Your task to perform on an android device: open sync settings in chrome Image 0: 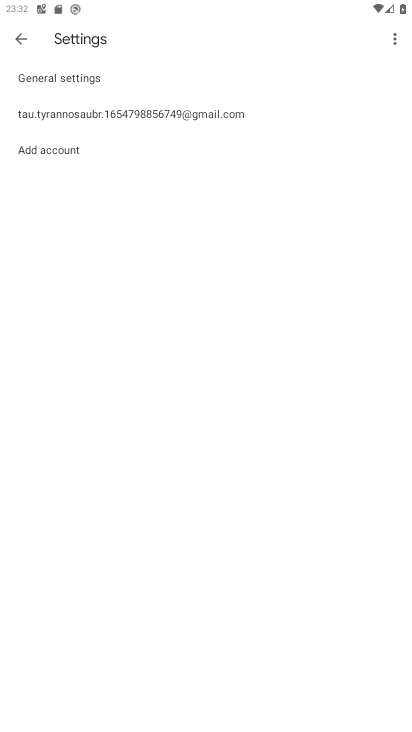
Step 0: press home button
Your task to perform on an android device: open sync settings in chrome Image 1: 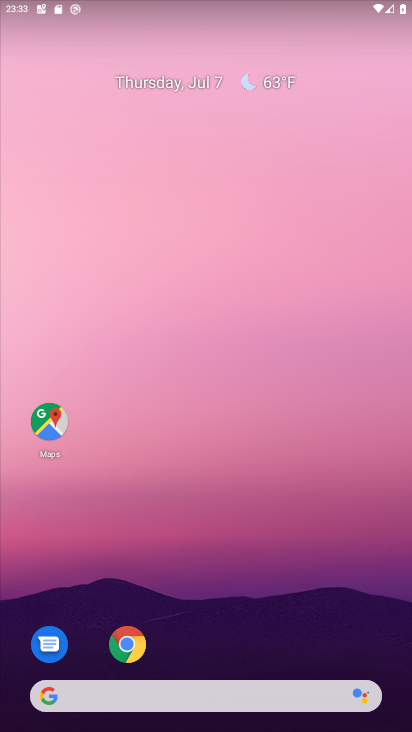
Step 1: click (127, 642)
Your task to perform on an android device: open sync settings in chrome Image 2: 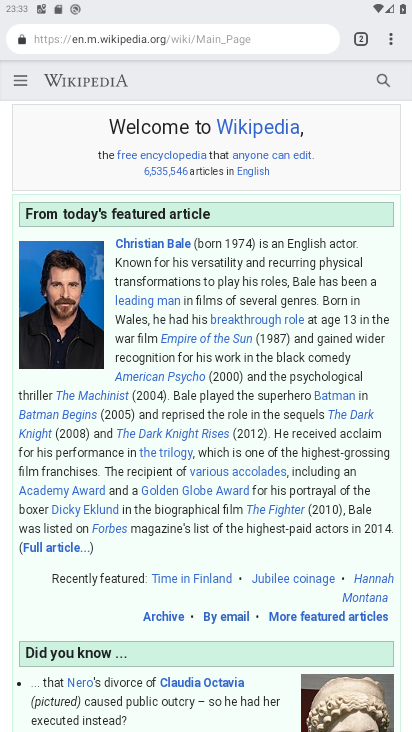
Step 2: click (390, 42)
Your task to perform on an android device: open sync settings in chrome Image 3: 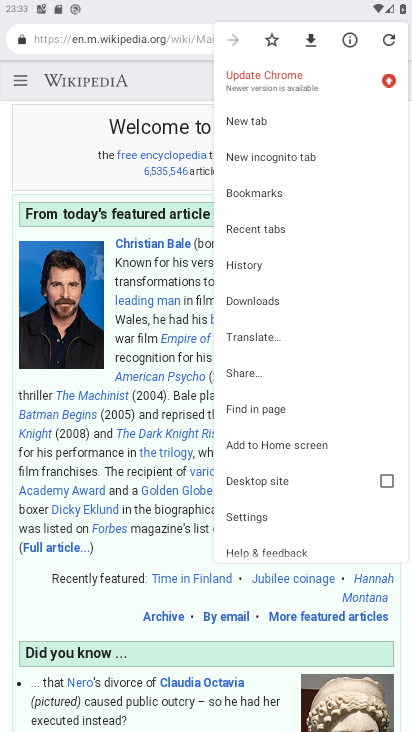
Step 3: click (248, 516)
Your task to perform on an android device: open sync settings in chrome Image 4: 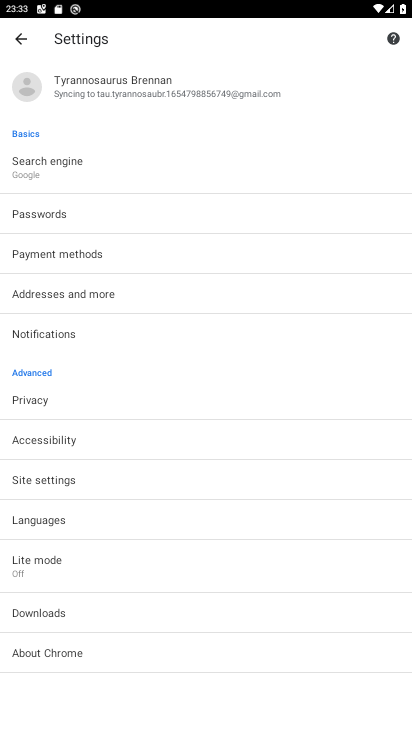
Step 4: click (39, 482)
Your task to perform on an android device: open sync settings in chrome Image 5: 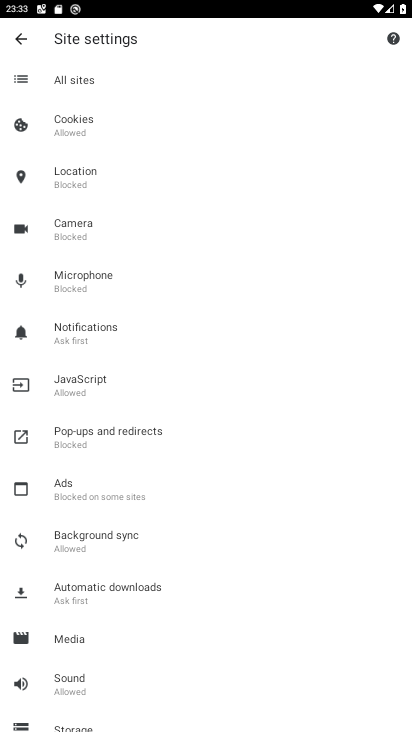
Step 5: click (77, 539)
Your task to perform on an android device: open sync settings in chrome Image 6: 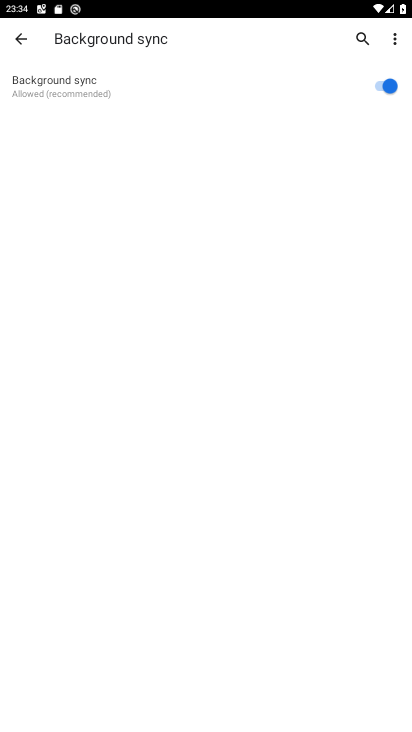
Step 6: task complete